Your task to perform on an android device: turn vacation reply on in the gmail app Image 0: 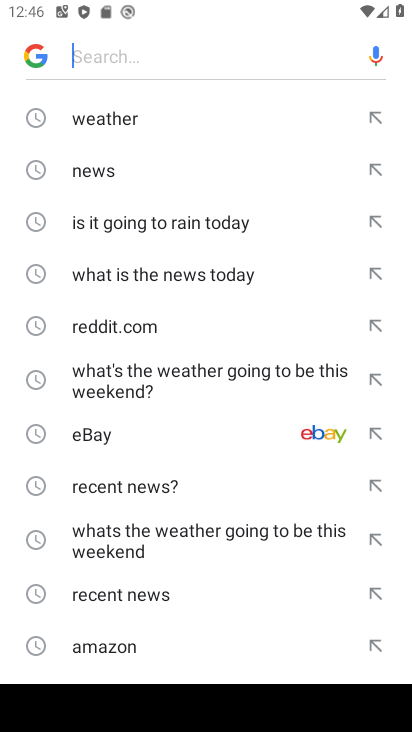
Step 0: press back button
Your task to perform on an android device: turn vacation reply on in the gmail app Image 1: 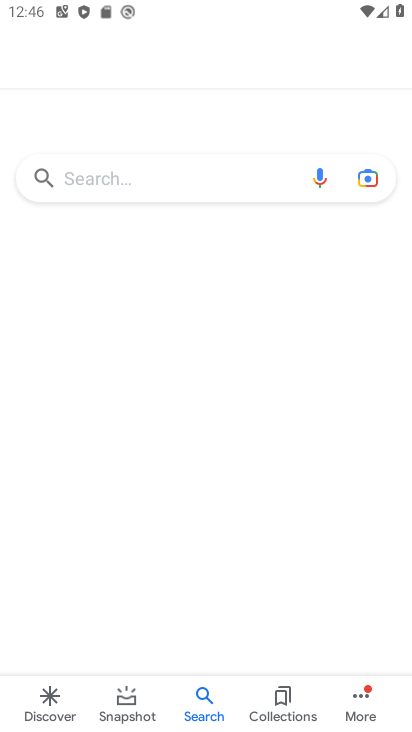
Step 1: press back button
Your task to perform on an android device: turn vacation reply on in the gmail app Image 2: 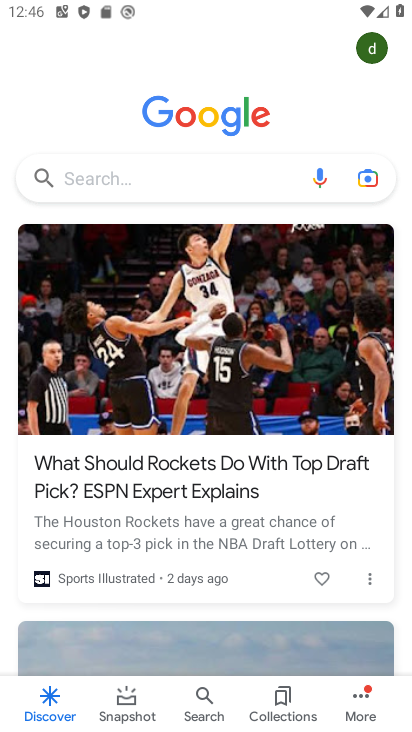
Step 2: press back button
Your task to perform on an android device: turn vacation reply on in the gmail app Image 3: 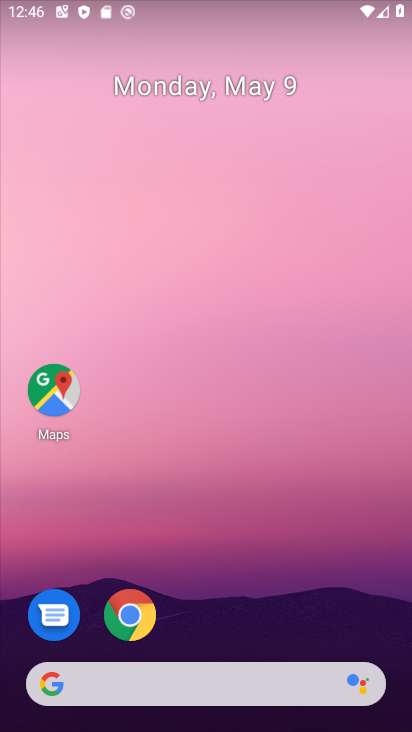
Step 3: drag from (263, 575) to (255, 169)
Your task to perform on an android device: turn vacation reply on in the gmail app Image 4: 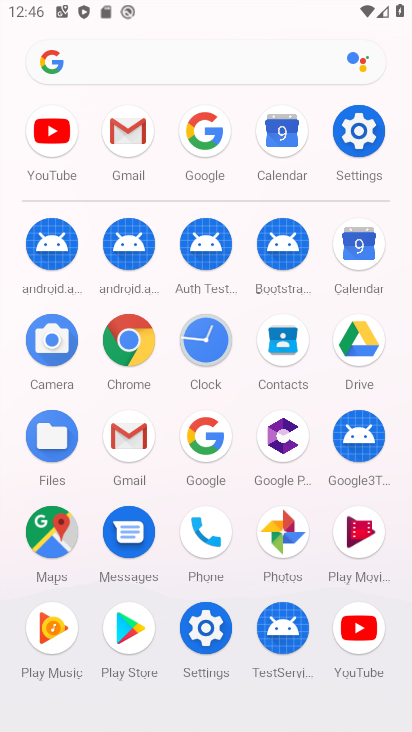
Step 4: click (128, 133)
Your task to perform on an android device: turn vacation reply on in the gmail app Image 5: 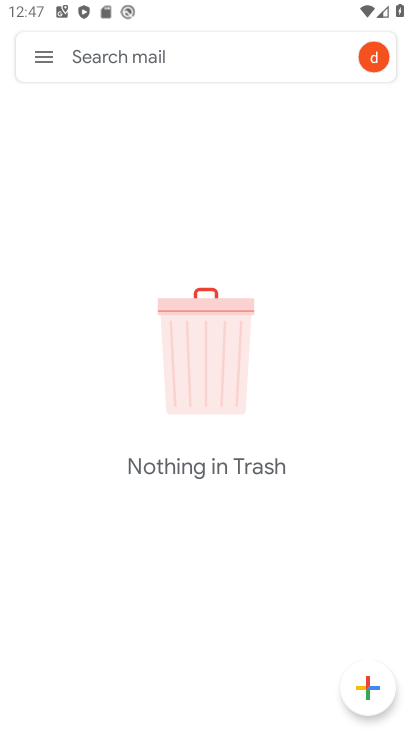
Step 5: click (47, 53)
Your task to perform on an android device: turn vacation reply on in the gmail app Image 6: 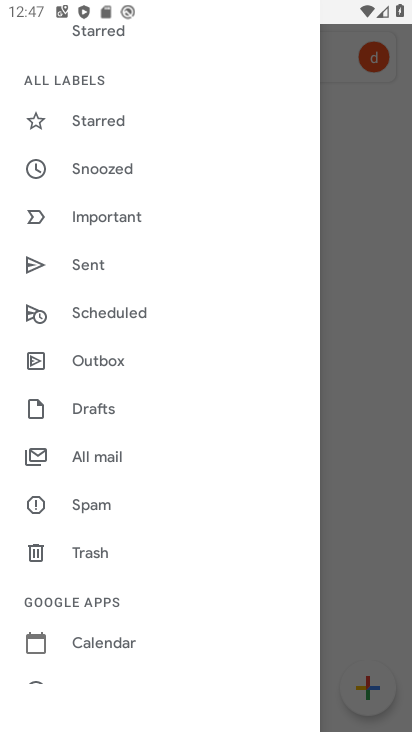
Step 6: drag from (123, 526) to (119, 358)
Your task to perform on an android device: turn vacation reply on in the gmail app Image 7: 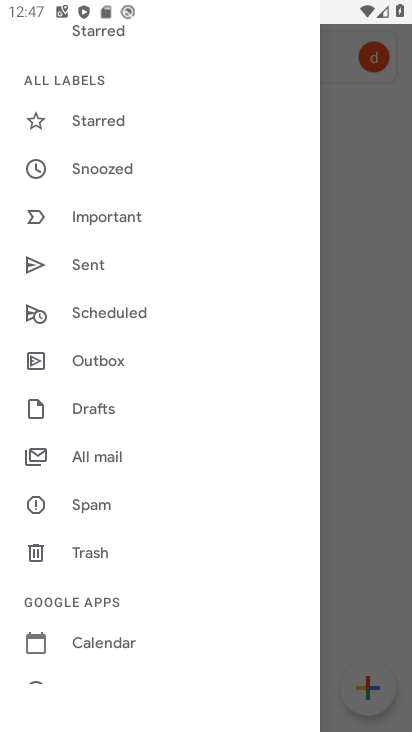
Step 7: drag from (117, 534) to (163, 375)
Your task to perform on an android device: turn vacation reply on in the gmail app Image 8: 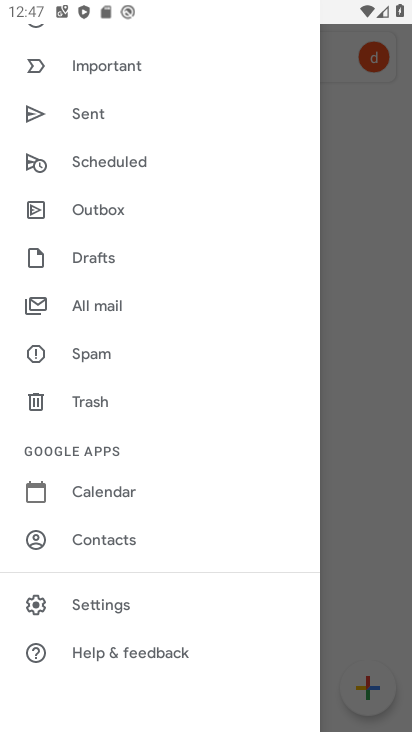
Step 8: click (100, 605)
Your task to perform on an android device: turn vacation reply on in the gmail app Image 9: 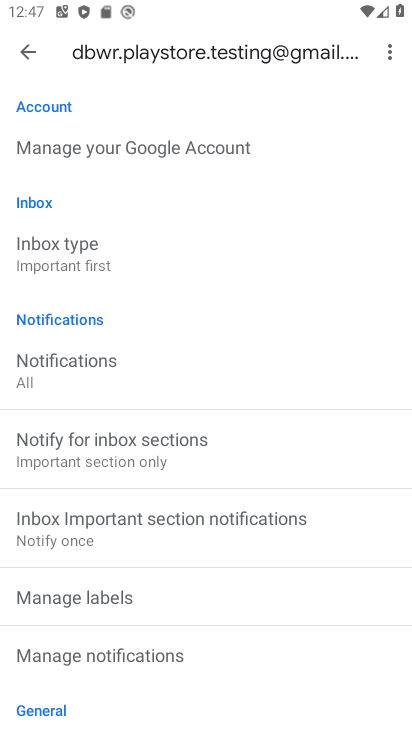
Step 9: drag from (198, 401) to (232, 306)
Your task to perform on an android device: turn vacation reply on in the gmail app Image 10: 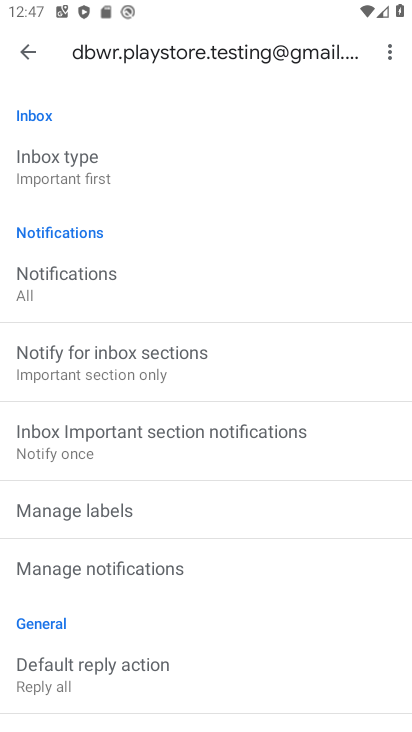
Step 10: drag from (160, 498) to (244, 368)
Your task to perform on an android device: turn vacation reply on in the gmail app Image 11: 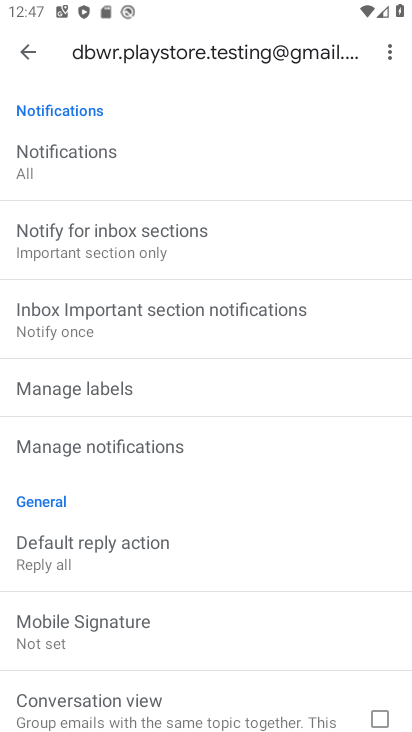
Step 11: drag from (192, 523) to (260, 418)
Your task to perform on an android device: turn vacation reply on in the gmail app Image 12: 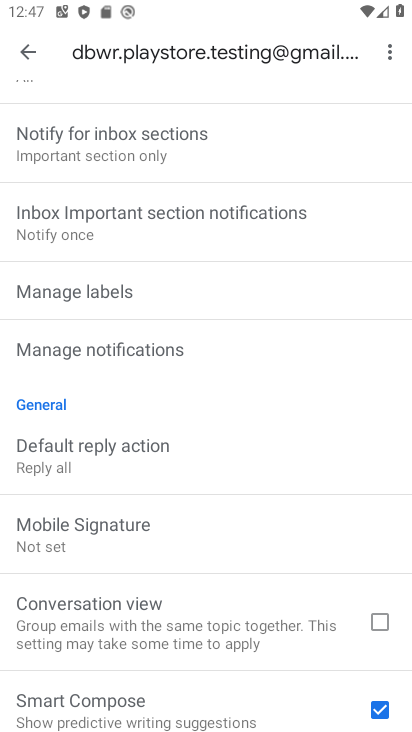
Step 12: drag from (184, 536) to (263, 421)
Your task to perform on an android device: turn vacation reply on in the gmail app Image 13: 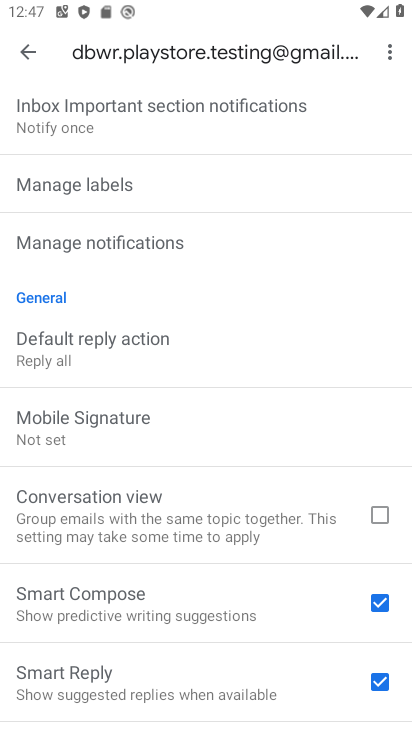
Step 13: drag from (153, 567) to (235, 456)
Your task to perform on an android device: turn vacation reply on in the gmail app Image 14: 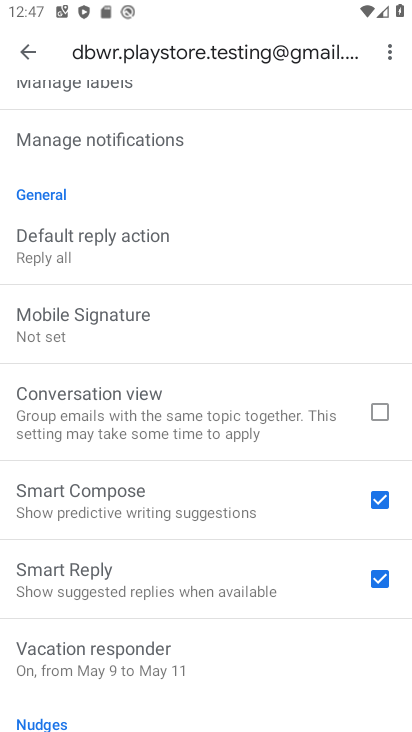
Step 14: drag from (161, 600) to (238, 474)
Your task to perform on an android device: turn vacation reply on in the gmail app Image 15: 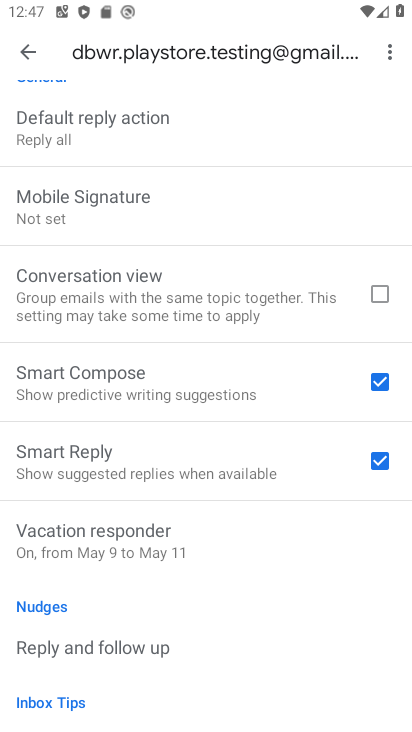
Step 15: click (155, 526)
Your task to perform on an android device: turn vacation reply on in the gmail app Image 16: 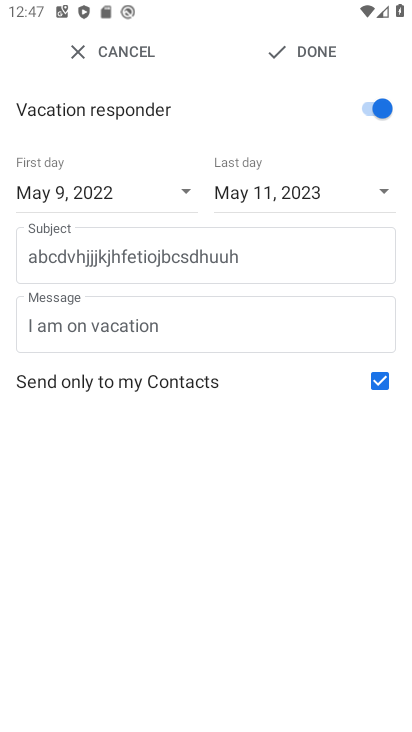
Step 16: task complete